Your task to perform on an android device: Open privacy settings Image 0: 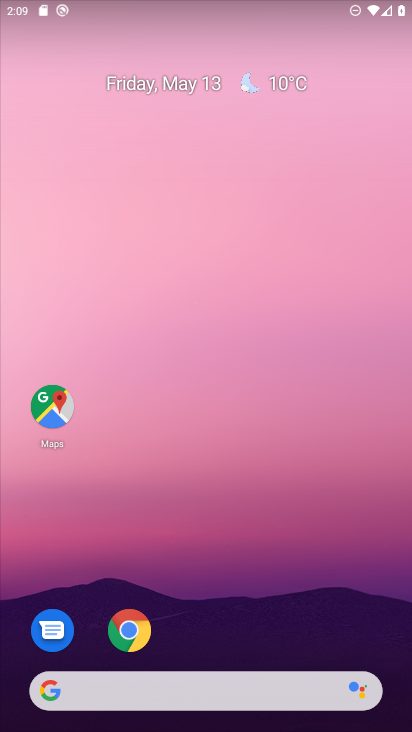
Step 0: drag from (213, 642) to (261, 21)
Your task to perform on an android device: Open privacy settings Image 1: 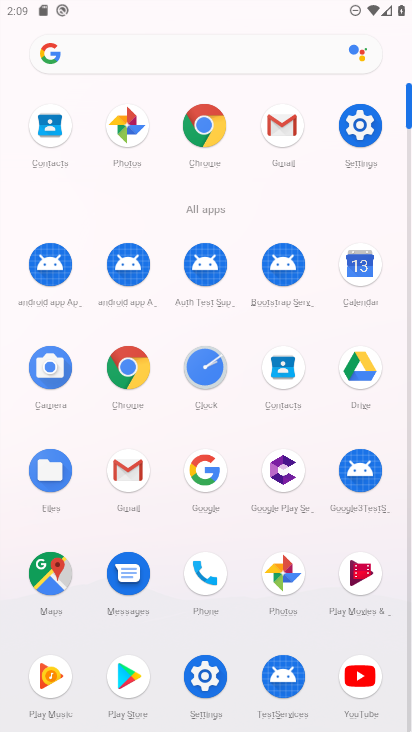
Step 1: click (358, 120)
Your task to perform on an android device: Open privacy settings Image 2: 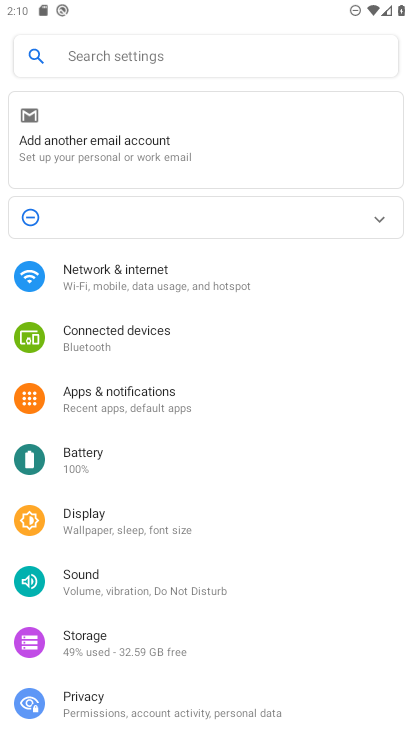
Step 2: click (145, 697)
Your task to perform on an android device: Open privacy settings Image 3: 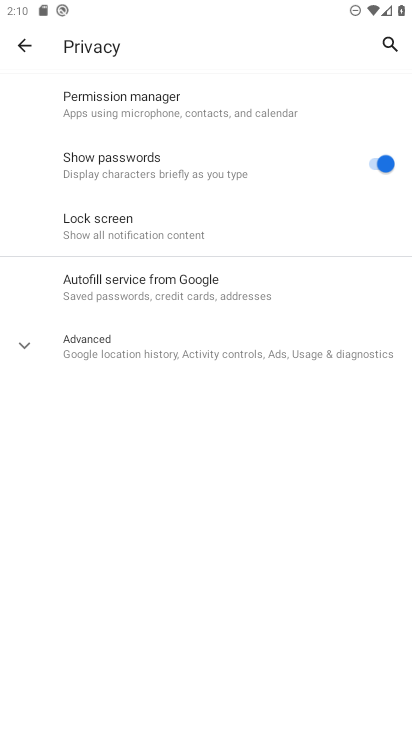
Step 3: click (30, 345)
Your task to perform on an android device: Open privacy settings Image 4: 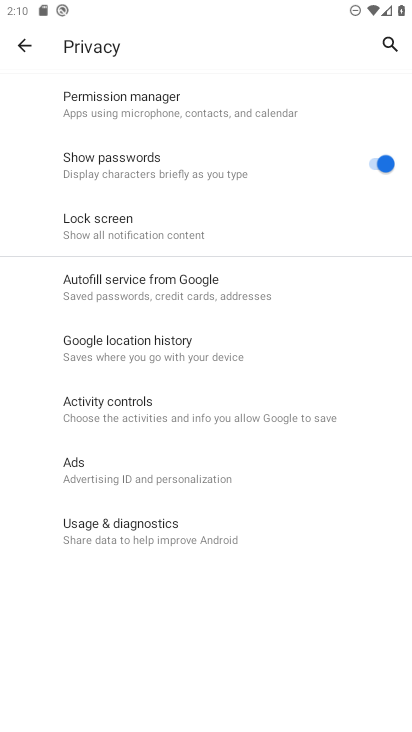
Step 4: task complete